Your task to perform on an android device: Open settings on Google Maps Image 0: 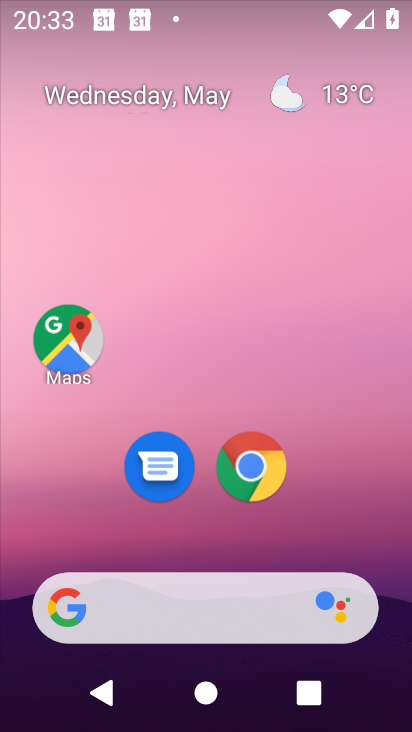
Step 0: press home button
Your task to perform on an android device: Open settings on Google Maps Image 1: 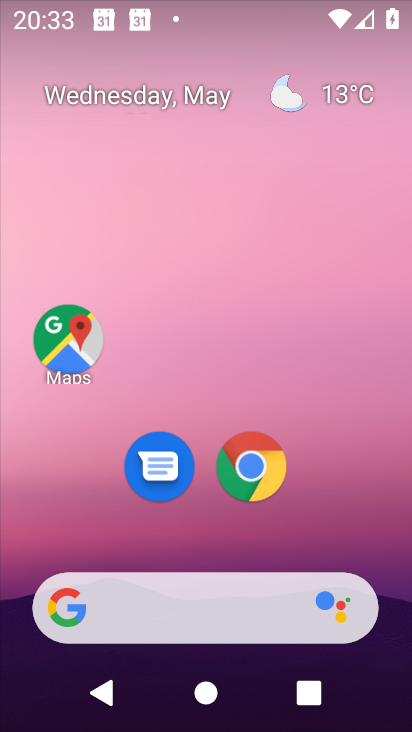
Step 1: drag from (200, 539) to (221, 79)
Your task to perform on an android device: Open settings on Google Maps Image 2: 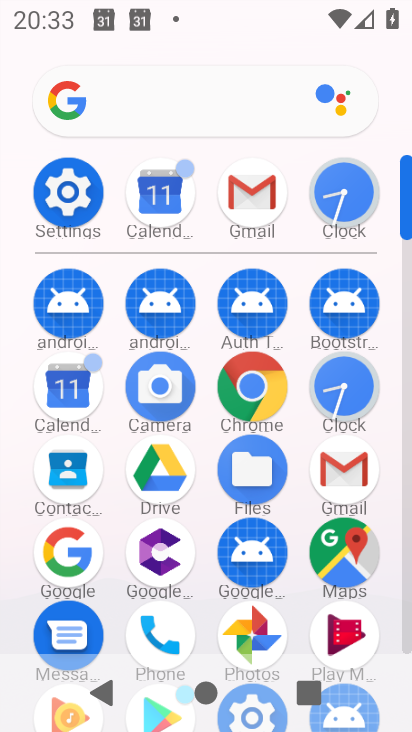
Step 2: click (339, 543)
Your task to perform on an android device: Open settings on Google Maps Image 3: 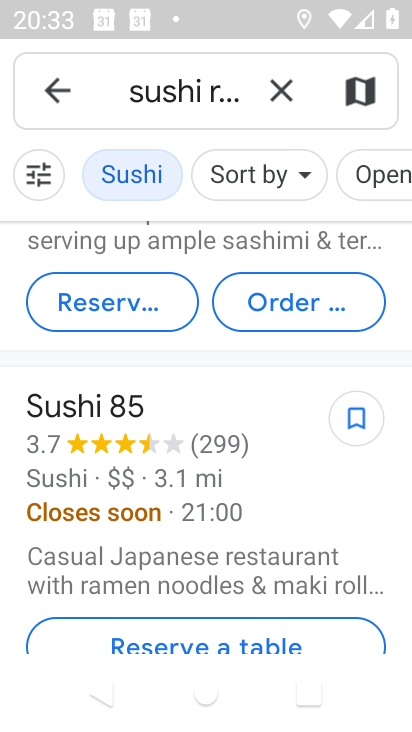
Step 3: click (59, 87)
Your task to perform on an android device: Open settings on Google Maps Image 4: 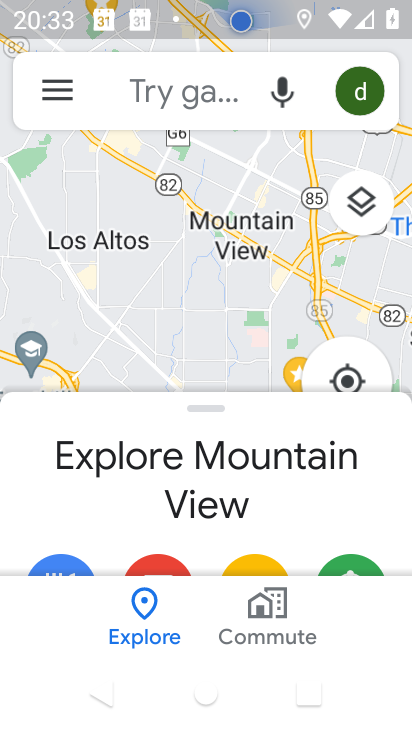
Step 4: click (52, 79)
Your task to perform on an android device: Open settings on Google Maps Image 5: 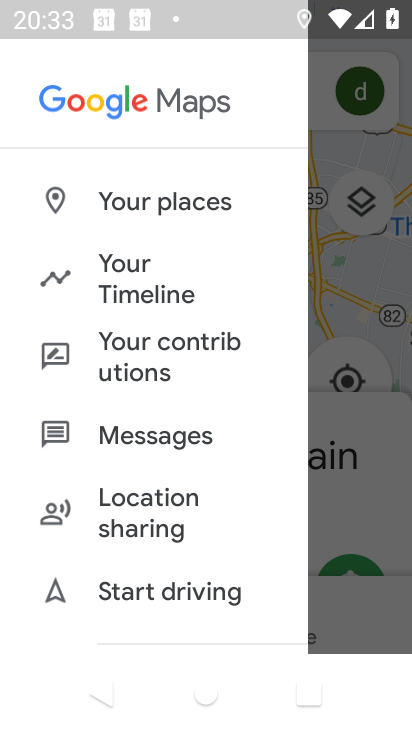
Step 5: drag from (154, 564) to (184, 168)
Your task to perform on an android device: Open settings on Google Maps Image 6: 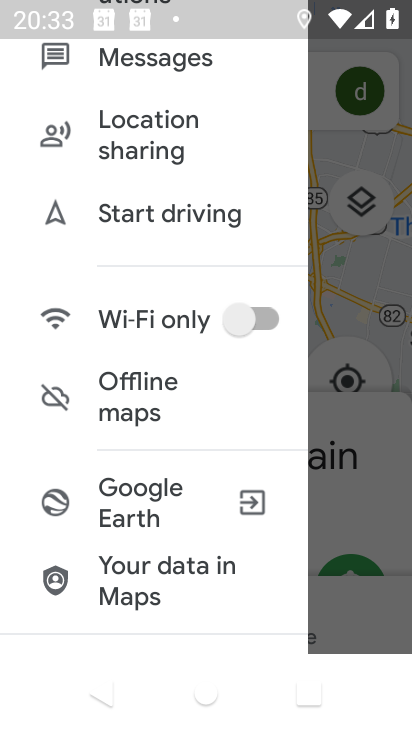
Step 6: drag from (141, 601) to (142, 118)
Your task to perform on an android device: Open settings on Google Maps Image 7: 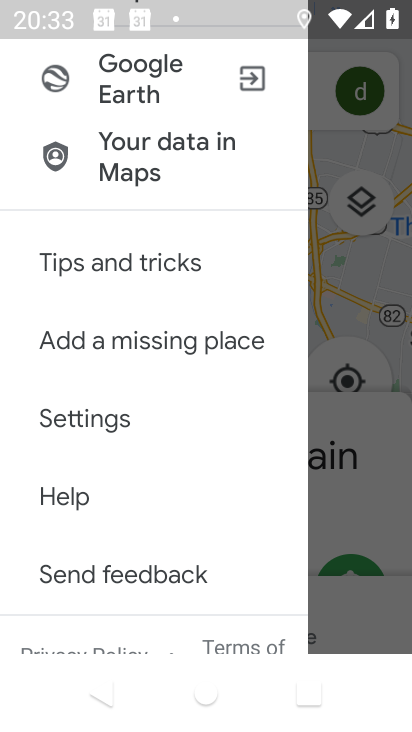
Step 7: click (141, 413)
Your task to perform on an android device: Open settings on Google Maps Image 8: 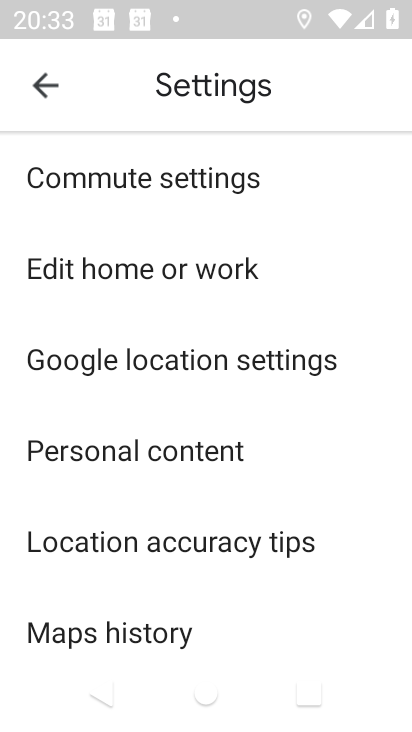
Step 8: task complete